Your task to perform on an android device: turn on the 24-hour format for clock Image 0: 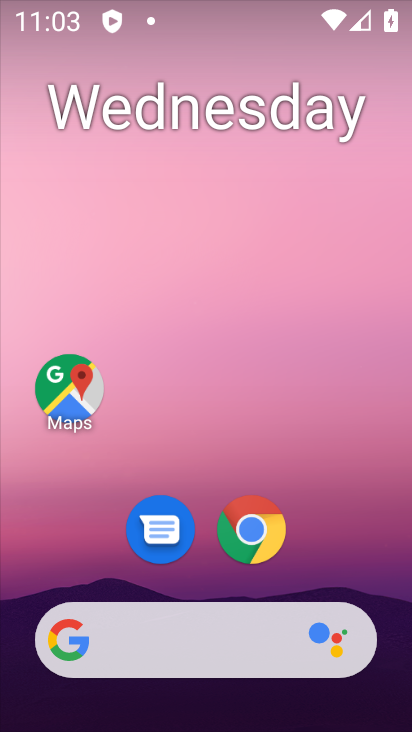
Step 0: drag from (379, 487) to (400, 215)
Your task to perform on an android device: turn on the 24-hour format for clock Image 1: 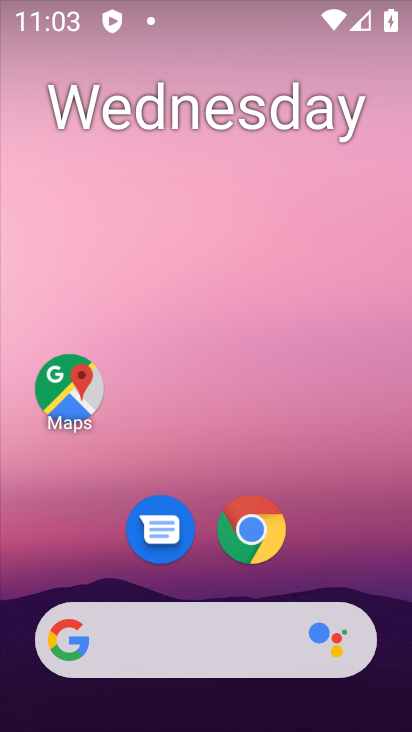
Step 1: drag from (342, 563) to (343, 110)
Your task to perform on an android device: turn on the 24-hour format for clock Image 2: 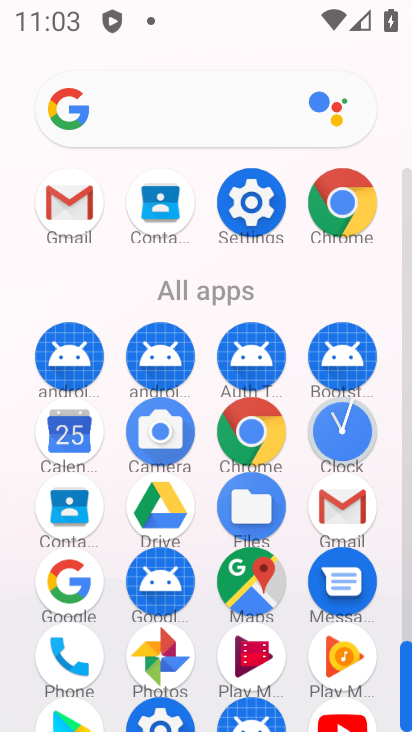
Step 2: click (356, 432)
Your task to perform on an android device: turn on the 24-hour format for clock Image 3: 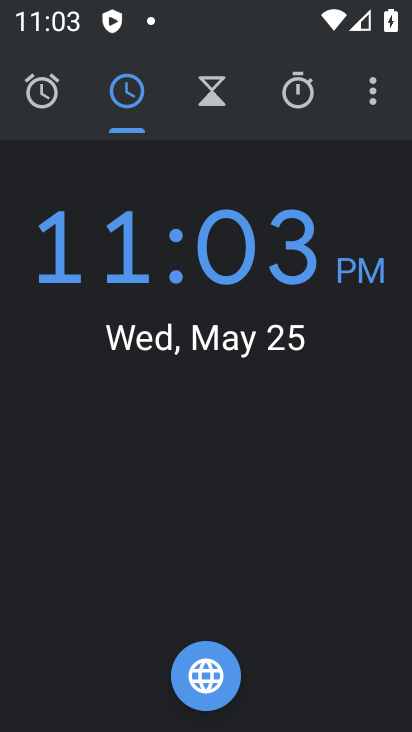
Step 3: click (372, 104)
Your task to perform on an android device: turn on the 24-hour format for clock Image 4: 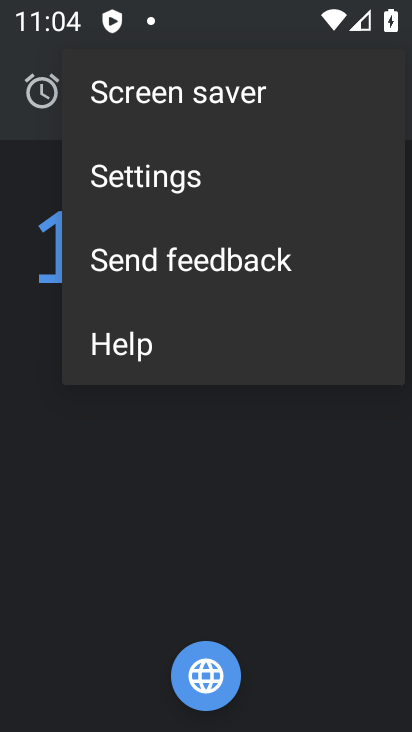
Step 4: click (223, 194)
Your task to perform on an android device: turn on the 24-hour format for clock Image 5: 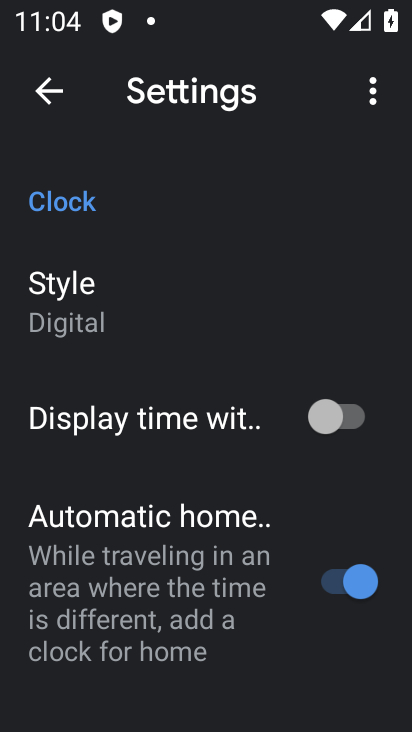
Step 5: drag from (275, 583) to (298, 489)
Your task to perform on an android device: turn on the 24-hour format for clock Image 6: 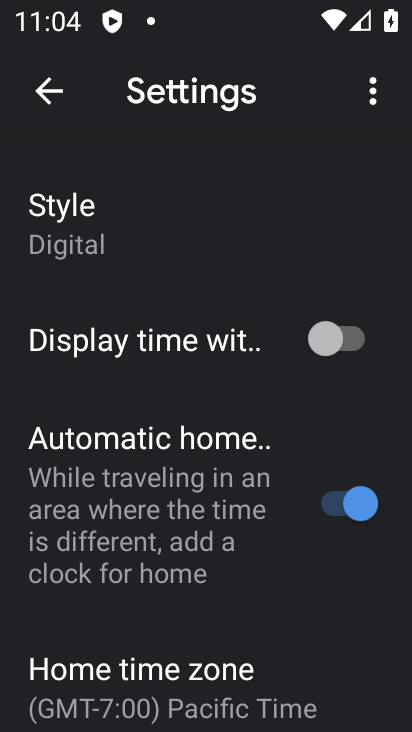
Step 6: drag from (290, 589) to (306, 496)
Your task to perform on an android device: turn on the 24-hour format for clock Image 7: 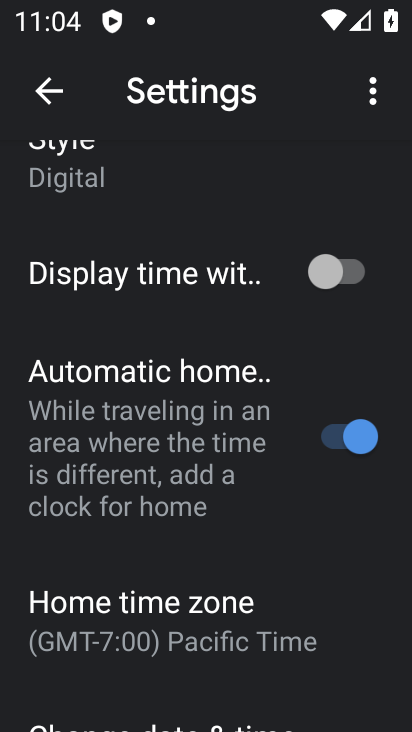
Step 7: drag from (301, 563) to (292, 465)
Your task to perform on an android device: turn on the 24-hour format for clock Image 8: 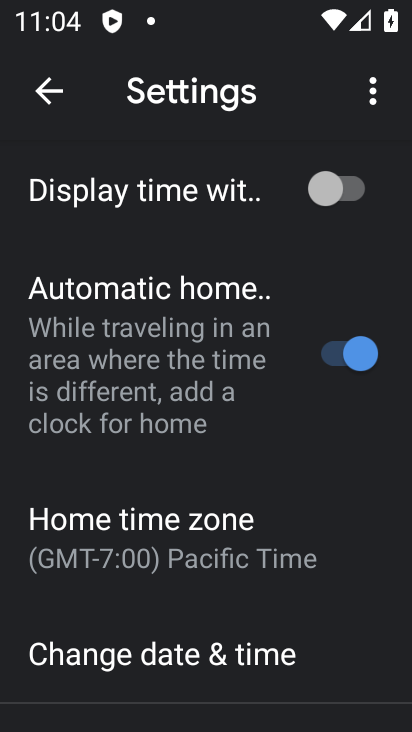
Step 8: drag from (302, 580) to (319, 480)
Your task to perform on an android device: turn on the 24-hour format for clock Image 9: 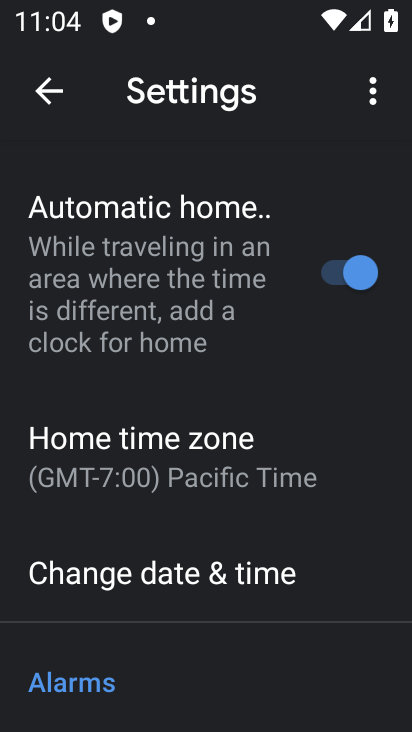
Step 9: drag from (340, 595) to (343, 459)
Your task to perform on an android device: turn on the 24-hour format for clock Image 10: 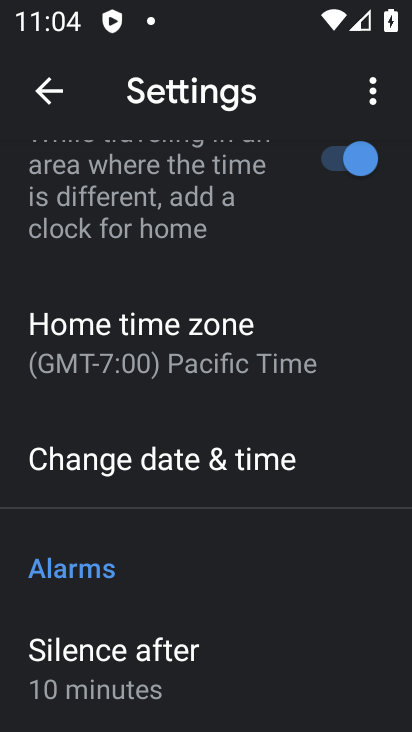
Step 10: drag from (330, 585) to (329, 471)
Your task to perform on an android device: turn on the 24-hour format for clock Image 11: 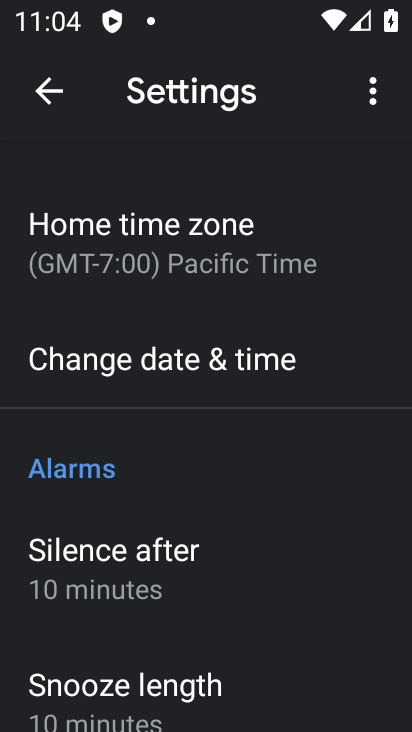
Step 11: click (264, 383)
Your task to perform on an android device: turn on the 24-hour format for clock Image 12: 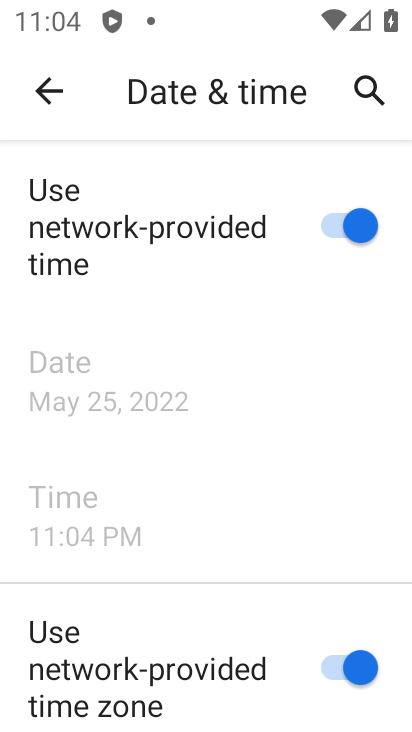
Step 12: drag from (290, 555) to (297, 441)
Your task to perform on an android device: turn on the 24-hour format for clock Image 13: 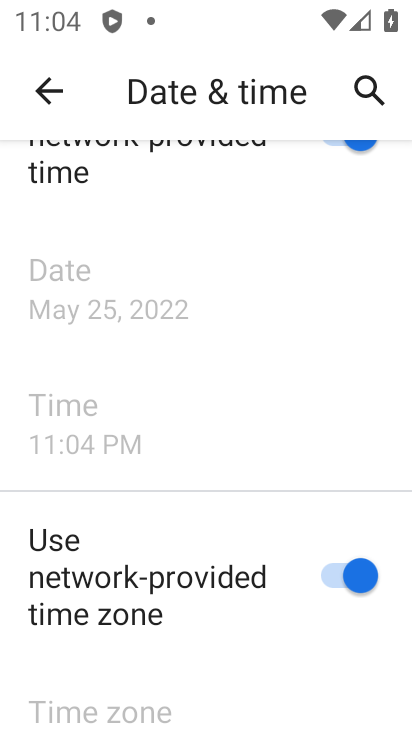
Step 13: drag from (276, 614) to (283, 470)
Your task to perform on an android device: turn on the 24-hour format for clock Image 14: 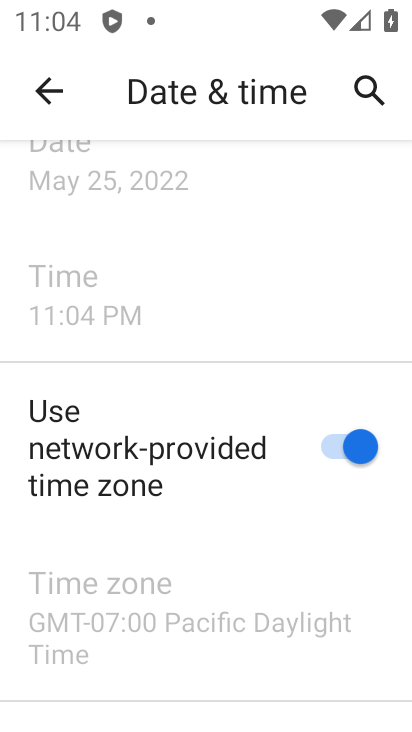
Step 14: drag from (278, 629) to (298, 434)
Your task to perform on an android device: turn on the 24-hour format for clock Image 15: 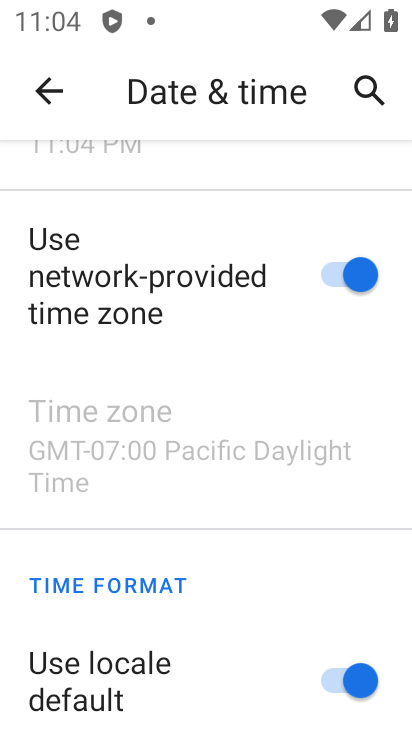
Step 15: drag from (259, 622) to (287, 446)
Your task to perform on an android device: turn on the 24-hour format for clock Image 16: 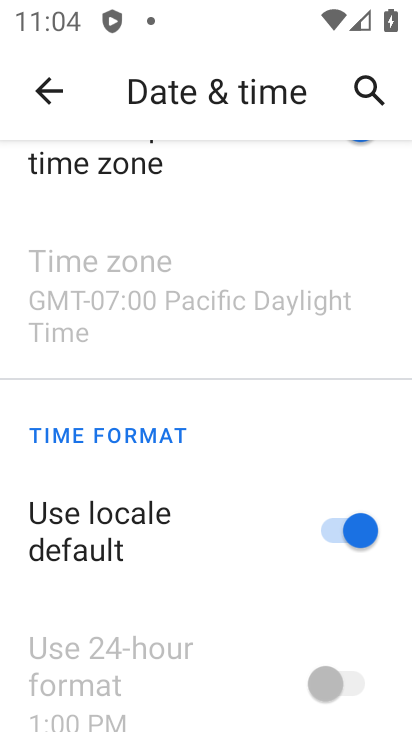
Step 16: drag from (269, 586) to (272, 490)
Your task to perform on an android device: turn on the 24-hour format for clock Image 17: 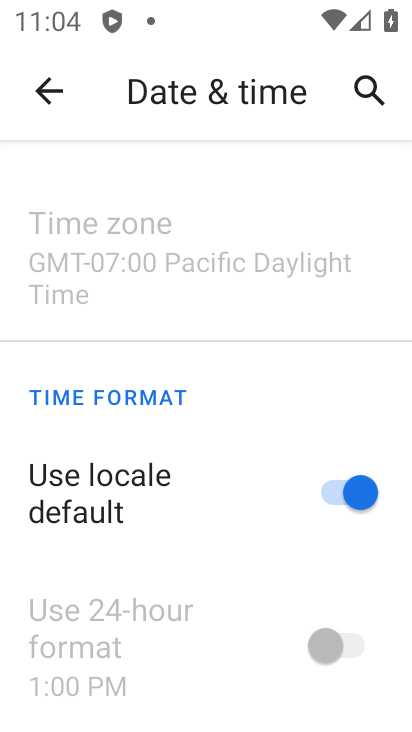
Step 17: click (350, 503)
Your task to perform on an android device: turn on the 24-hour format for clock Image 18: 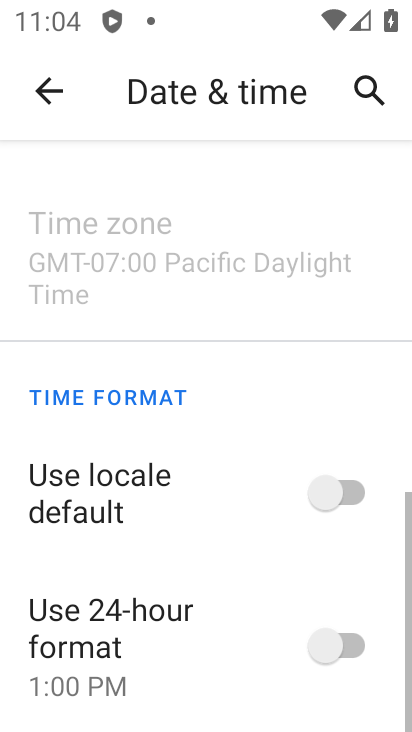
Step 18: click (310, 655)
Your task to perform on an android device: turn on the 24-hour format for clock Image 19: 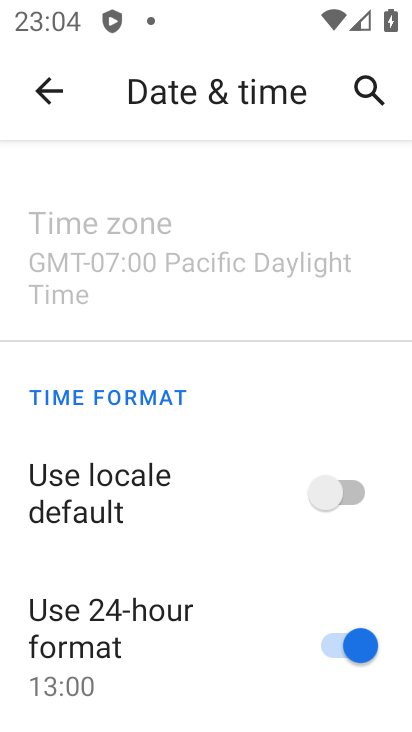
Step 19: task complete